Your task to perform on an android device: uninstall "Walmart Shopping & Grocery" Image 0: 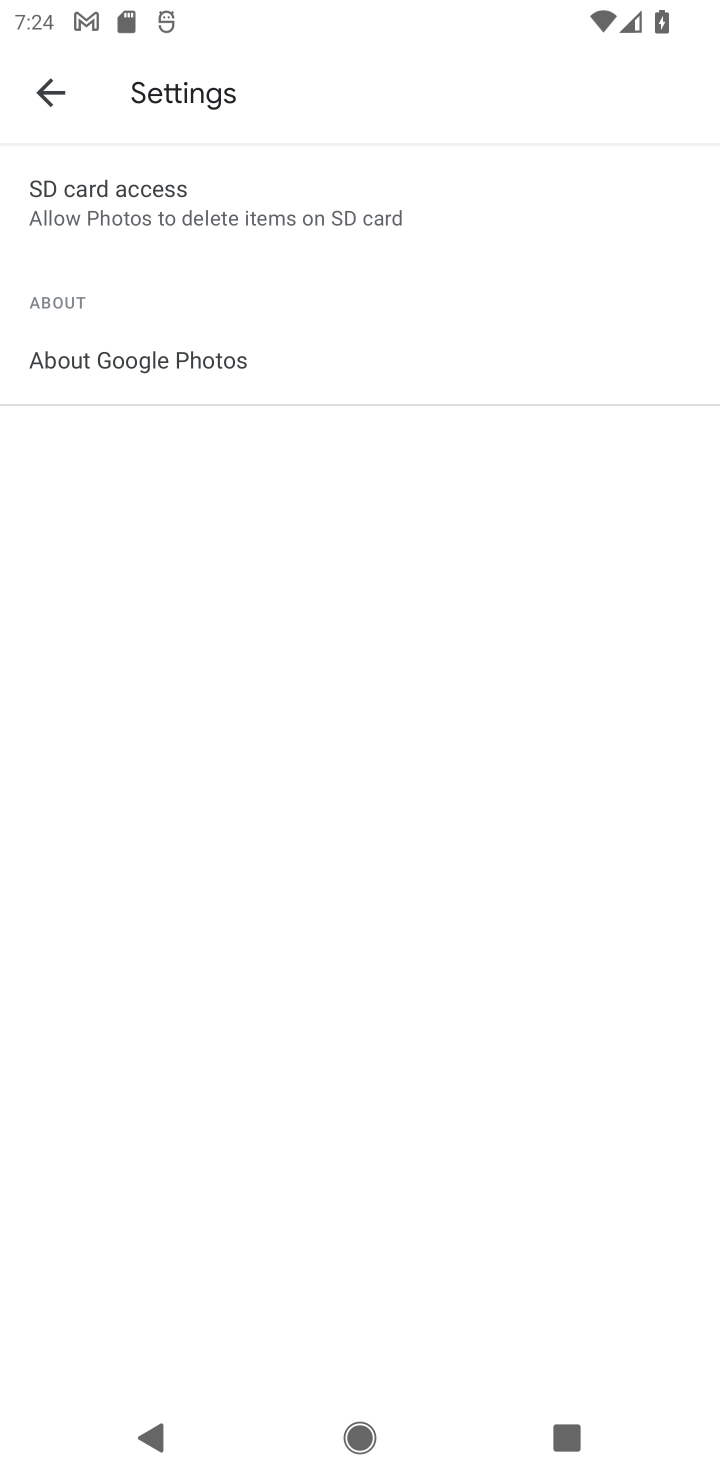
Step 0: press home button
Your task to perform on an android device: uninstall "Walmart Shopping & Grocery" Image 1: 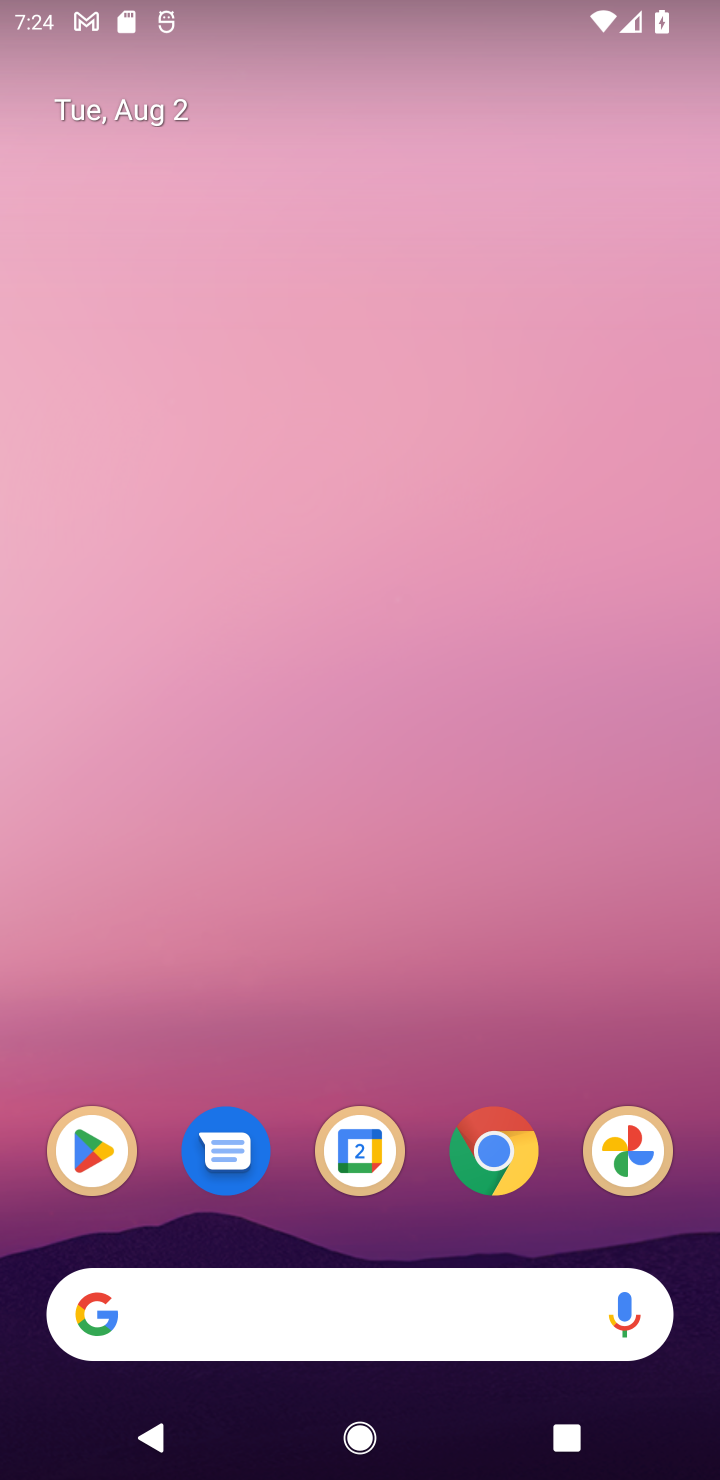
Step 1: drag from (333, 1246) to (333, 61)
Your task to perform on an android device: uninstall "Walmart Shopping & Grocery" Image 2: 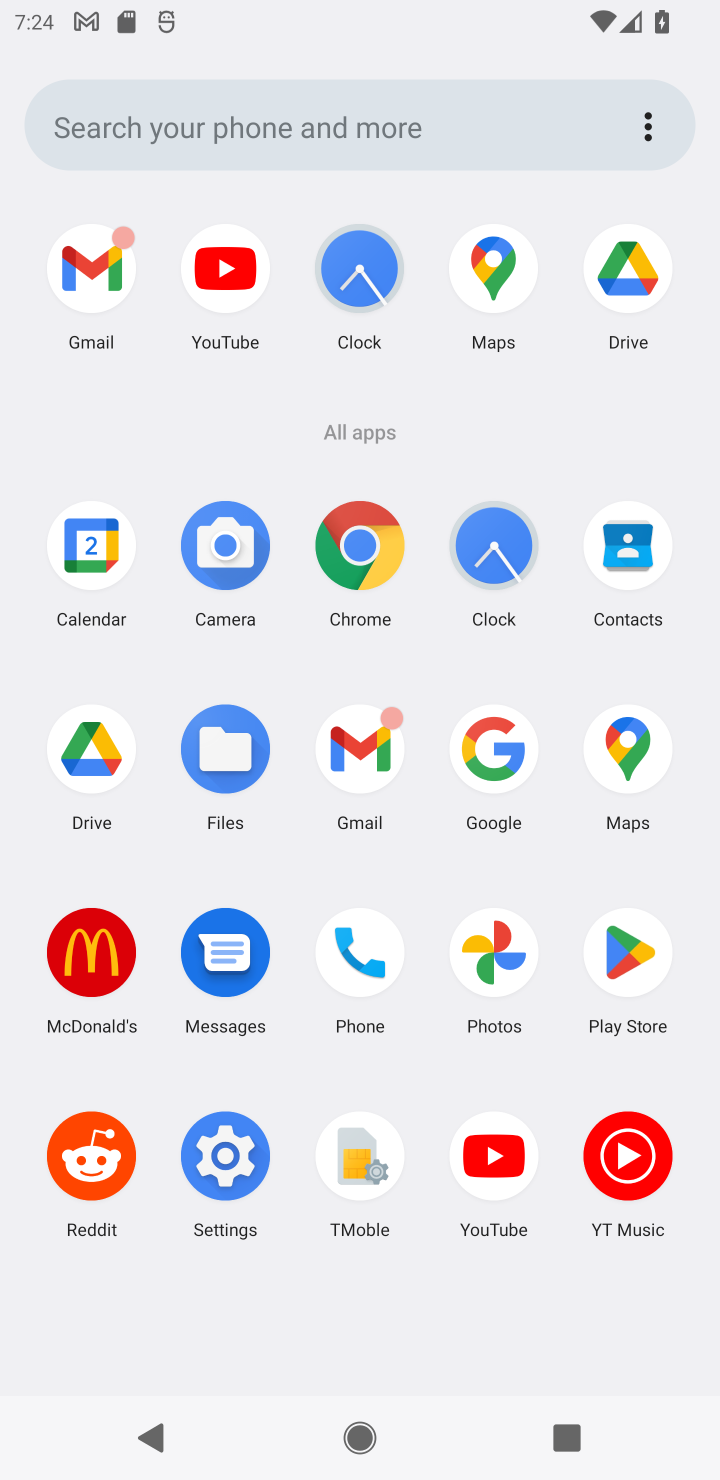
Step 2: click (632, 952)
Your task to perform on an android device: uninstall "Walmart Shopping & Grocery" Image 3: 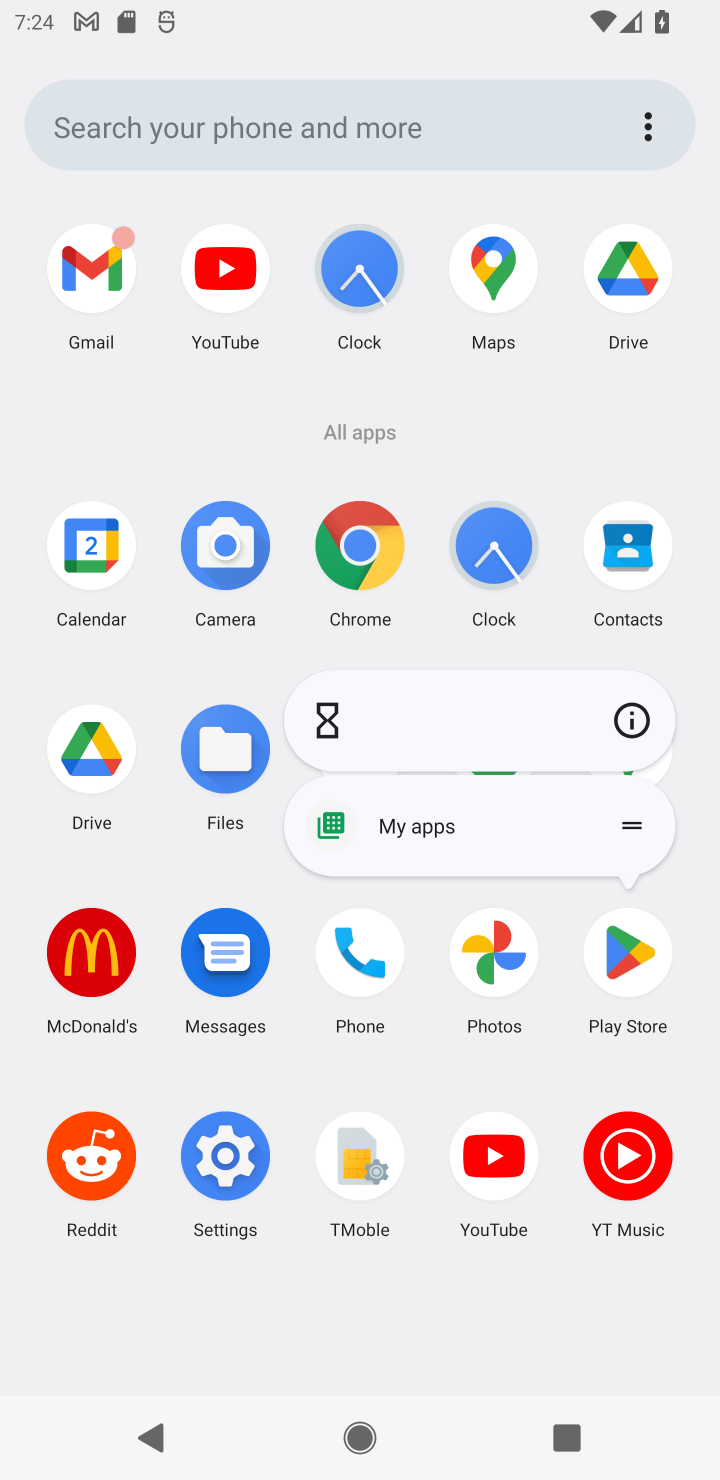
Step 3: click (629, 953)
Your task to perform on an android device: uninstall "Walmart Shopping & Grocery" Image 4: 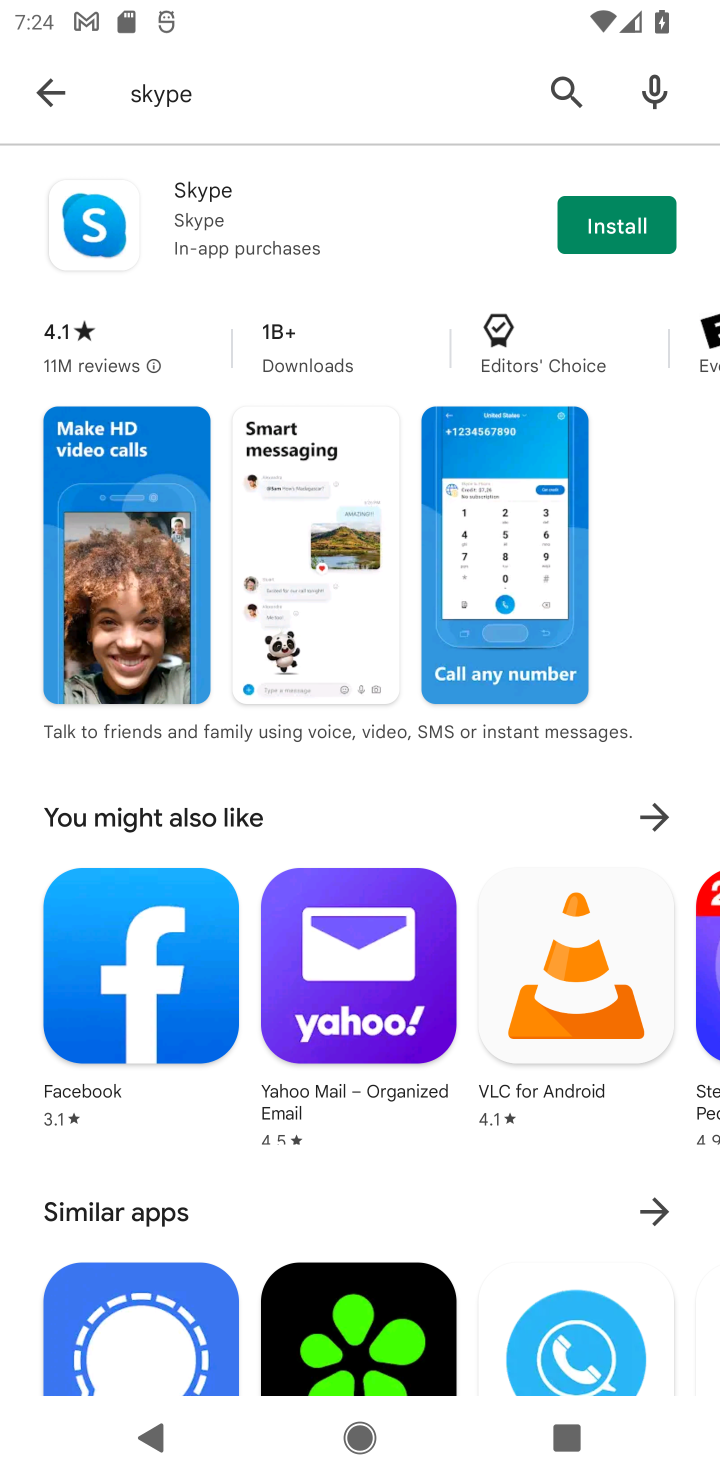
Step 4: click (48, 92)
Your task to perform on an android device: uninstall "Walmart Shopping & Grocery" Image 5: 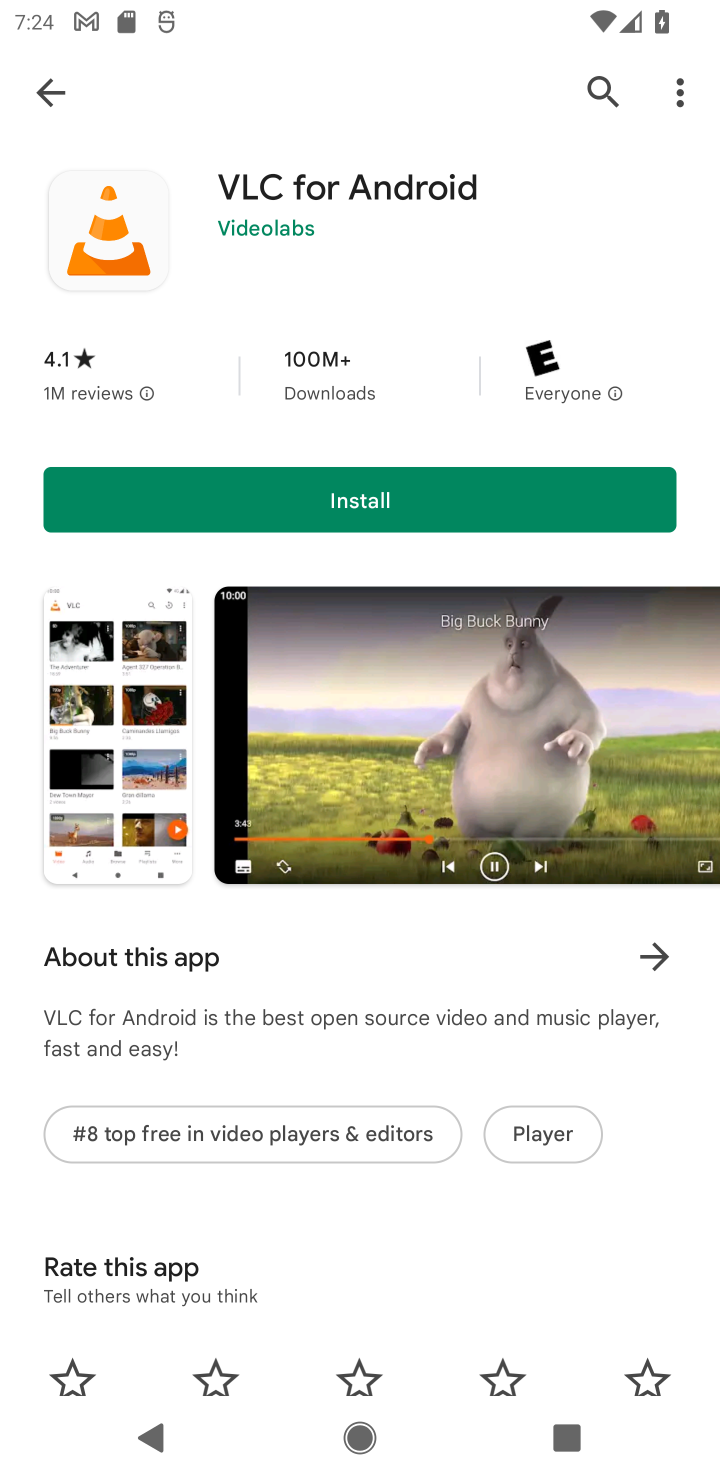
Step 5: click (34, 88)
Your task to perform on an android device: uninstall "Walmart Shopping & Grocery" Image 6: 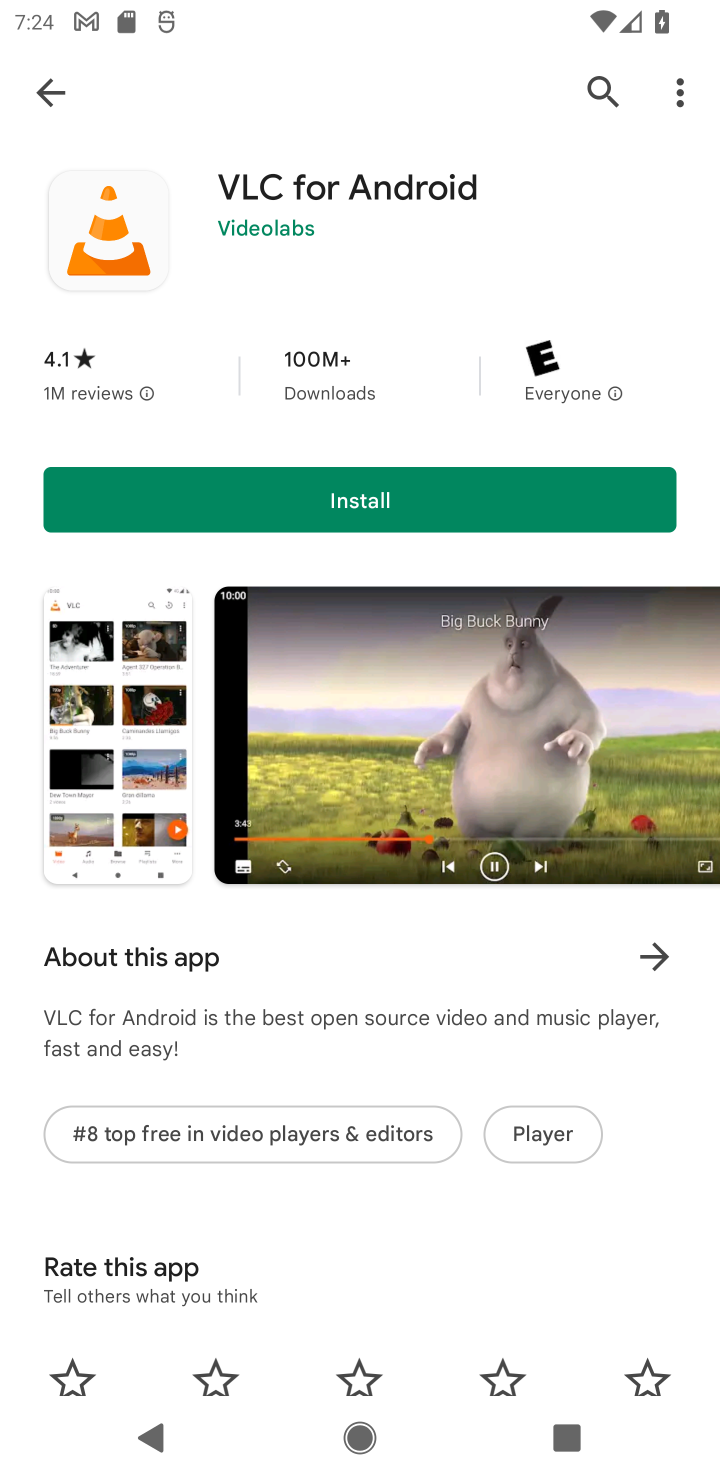
Step 6: click (41, 88)
Your task to perform on an android device: uninstall "Walmart Shopping & Grocery" Image 7: 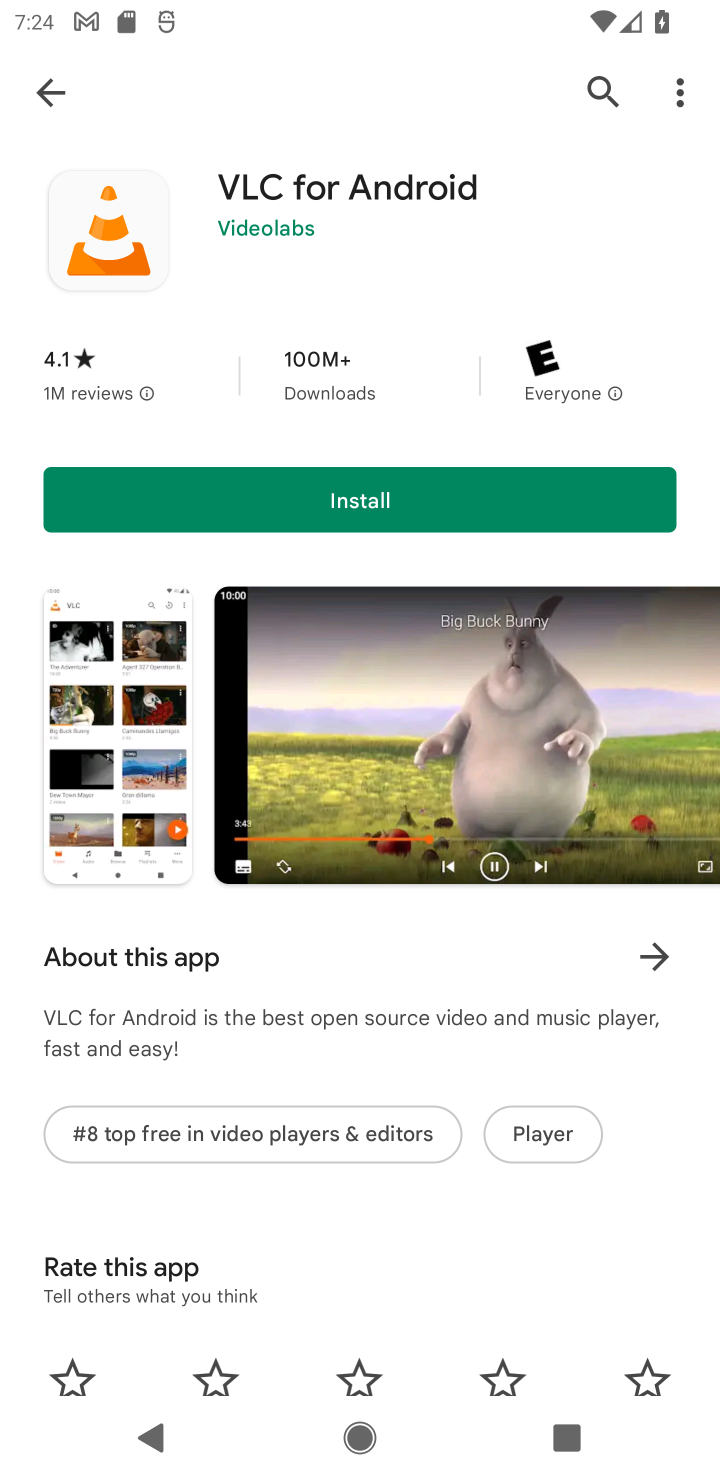
Step 7: click (47, 90)
Your task to perform on an android device: uninstall "Walmart Shopping & Grocery" Image 8: 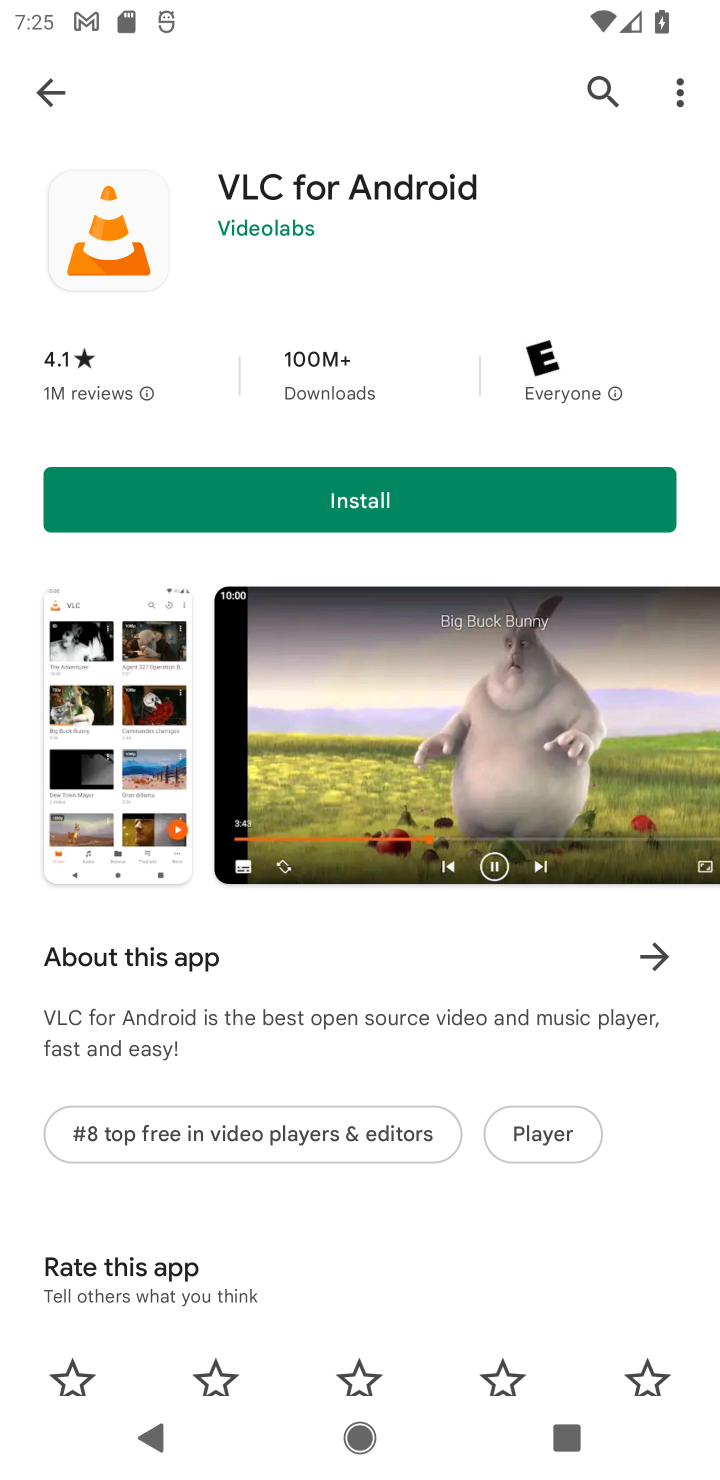
Step 8: click (25, 77)
Your task to perform on an android device: uninstall "Walmart Shopping & Grocery" Image 9: 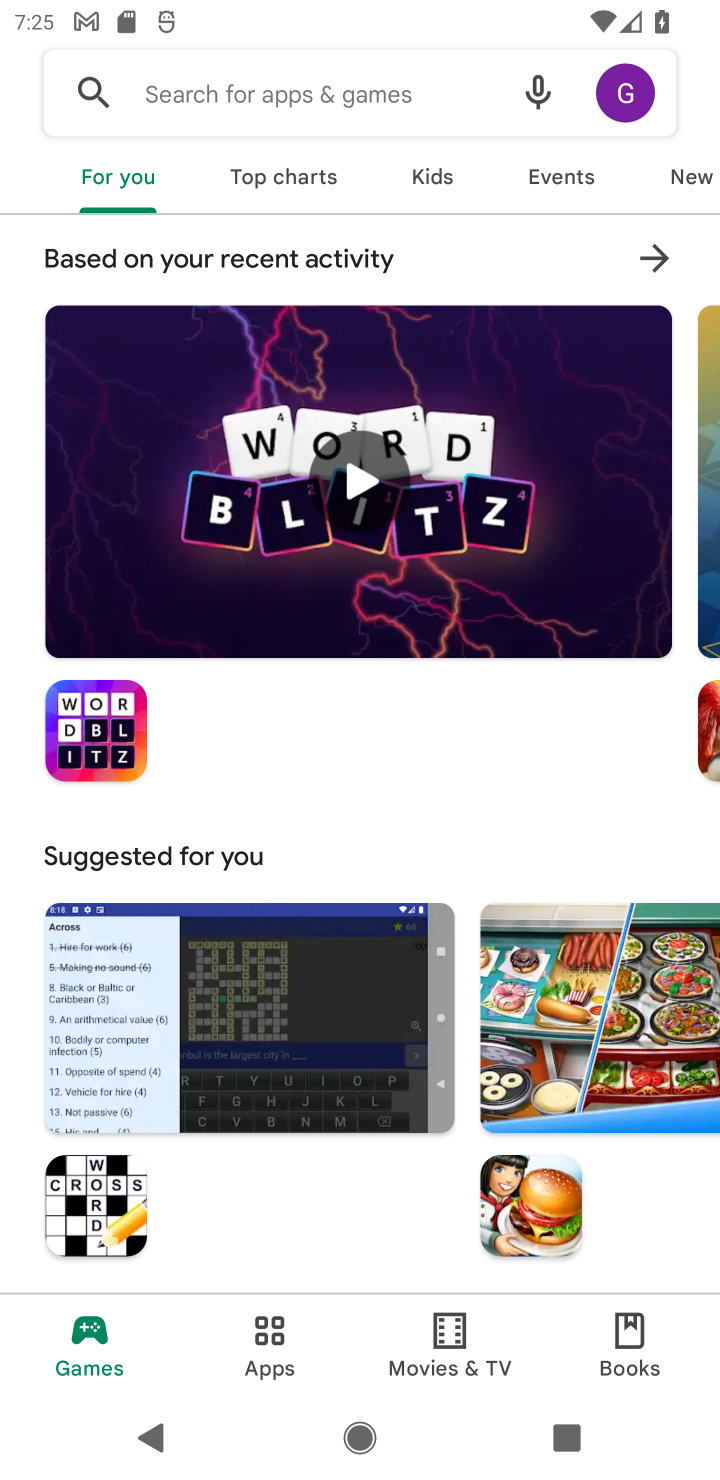
Step 9: click (130, 94)
Your task to perform on an android device: uninstall "Walmart Shopping & Grocery" Image 10: 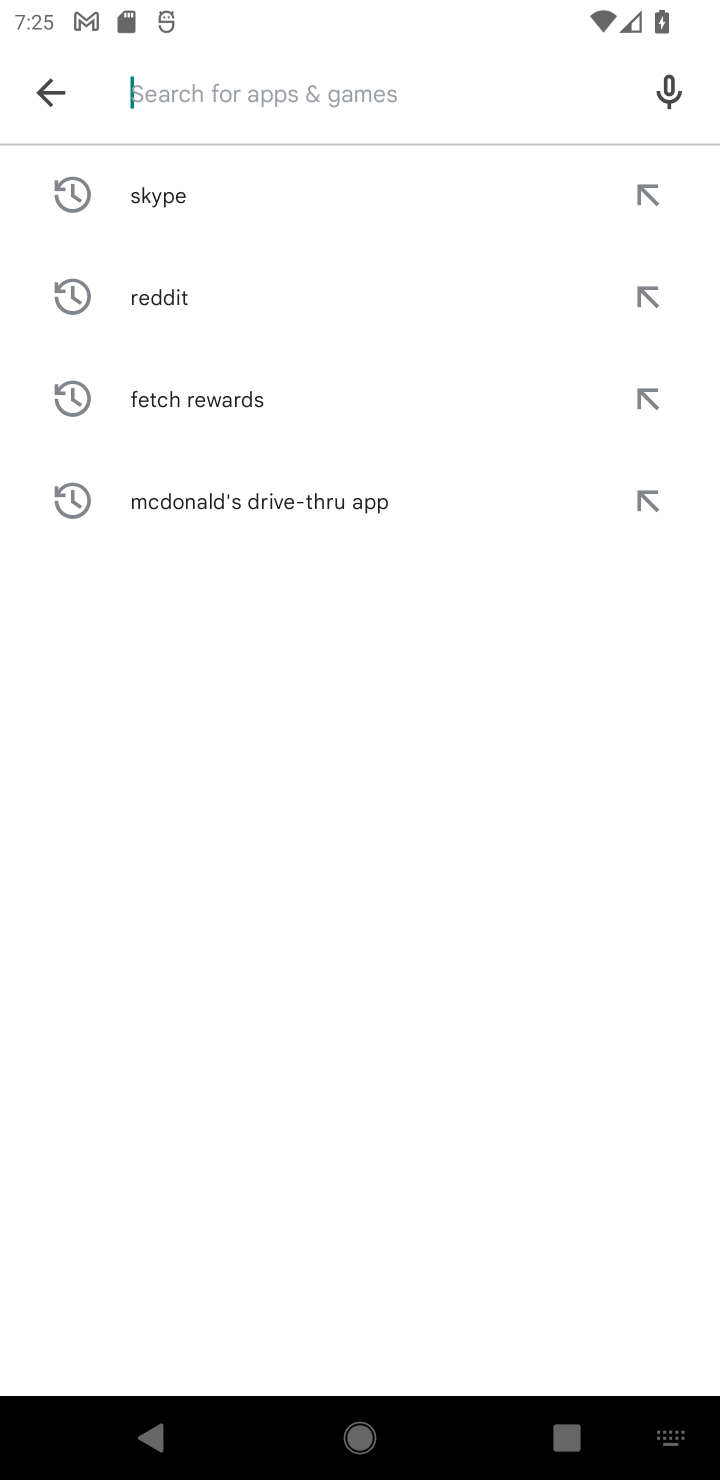
Step 10: type "Walmart Shopping & Grocery"
Your task to perform on an android device: uninstall "Walmart Shopping & Grocery" Image 11: 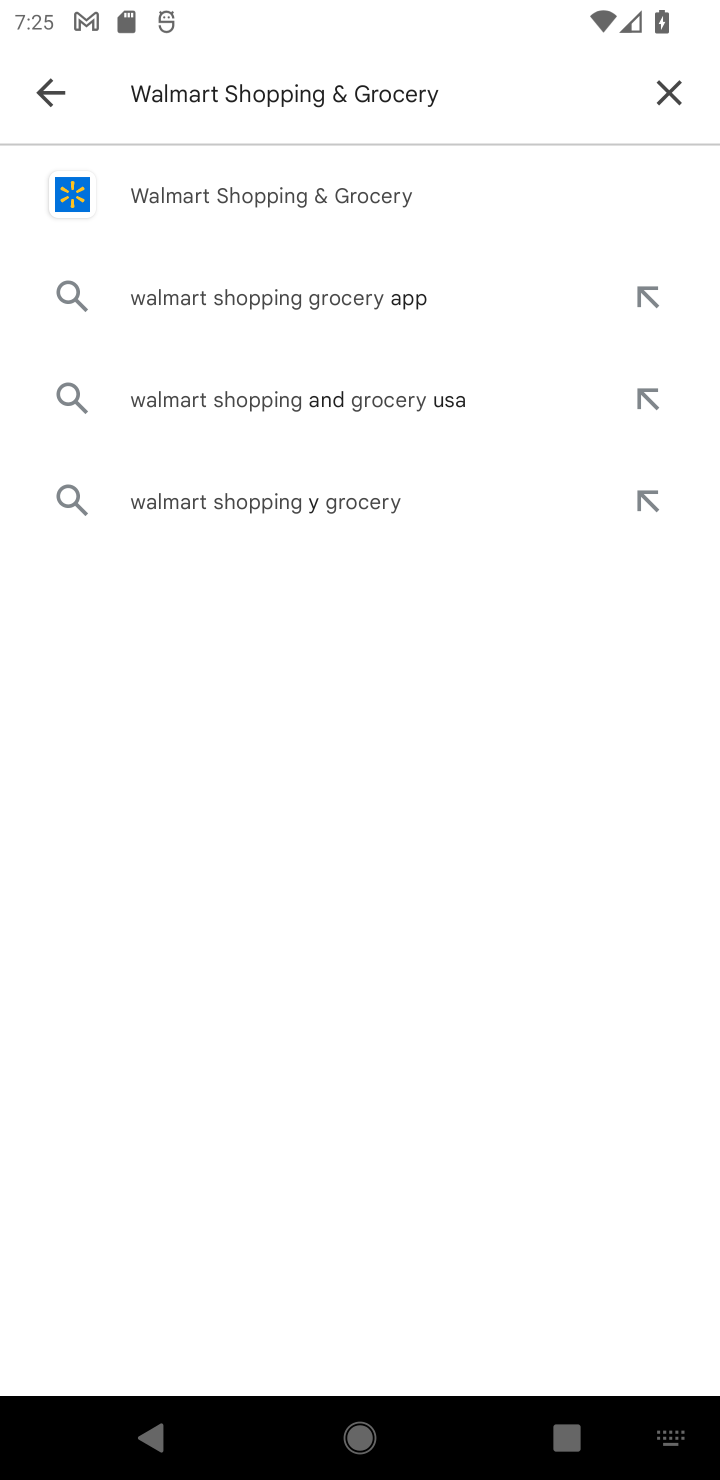
Step 11: click (163, 183)
Your task to perform on an android device: uninstall "Walmart Shopping & Grocery" Image 12: 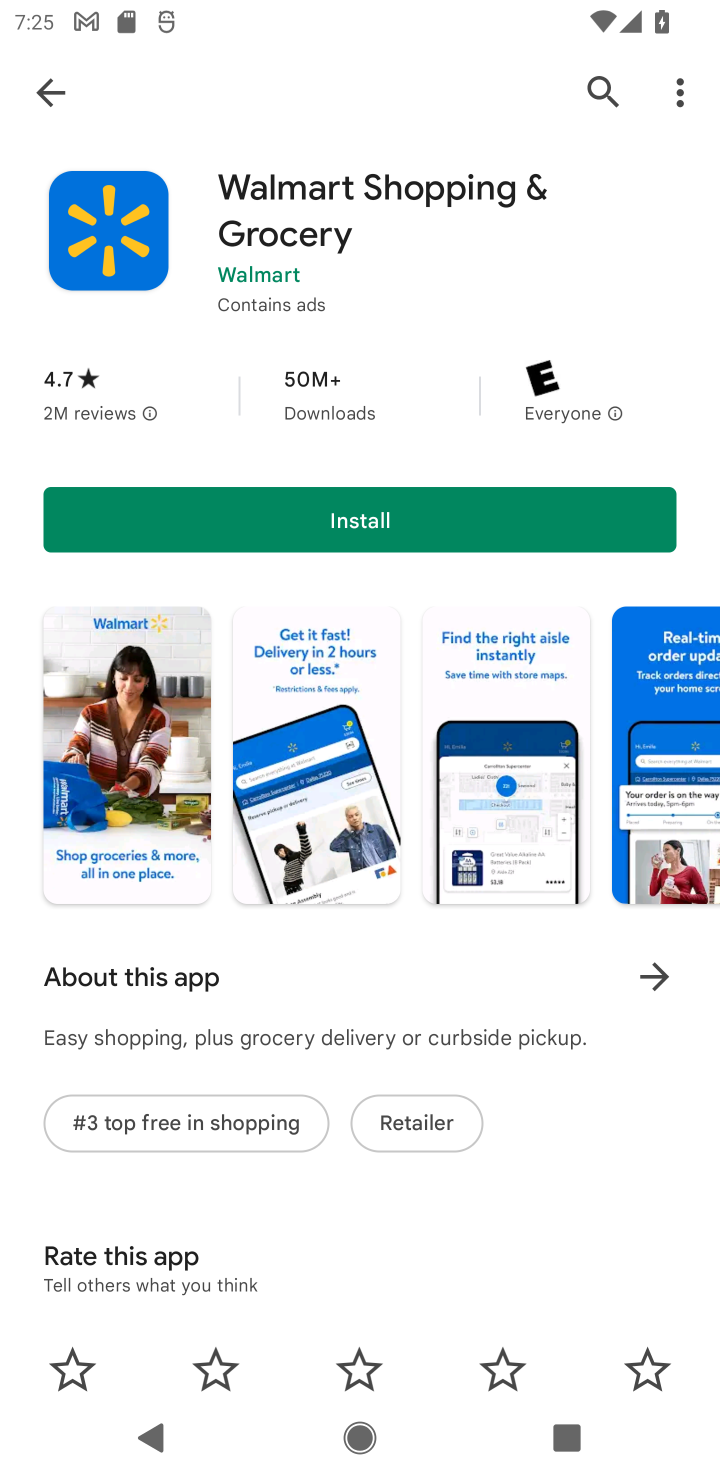
Step 12: task complete